Your task to perform on an android device: empty trash in google photos Image 0: 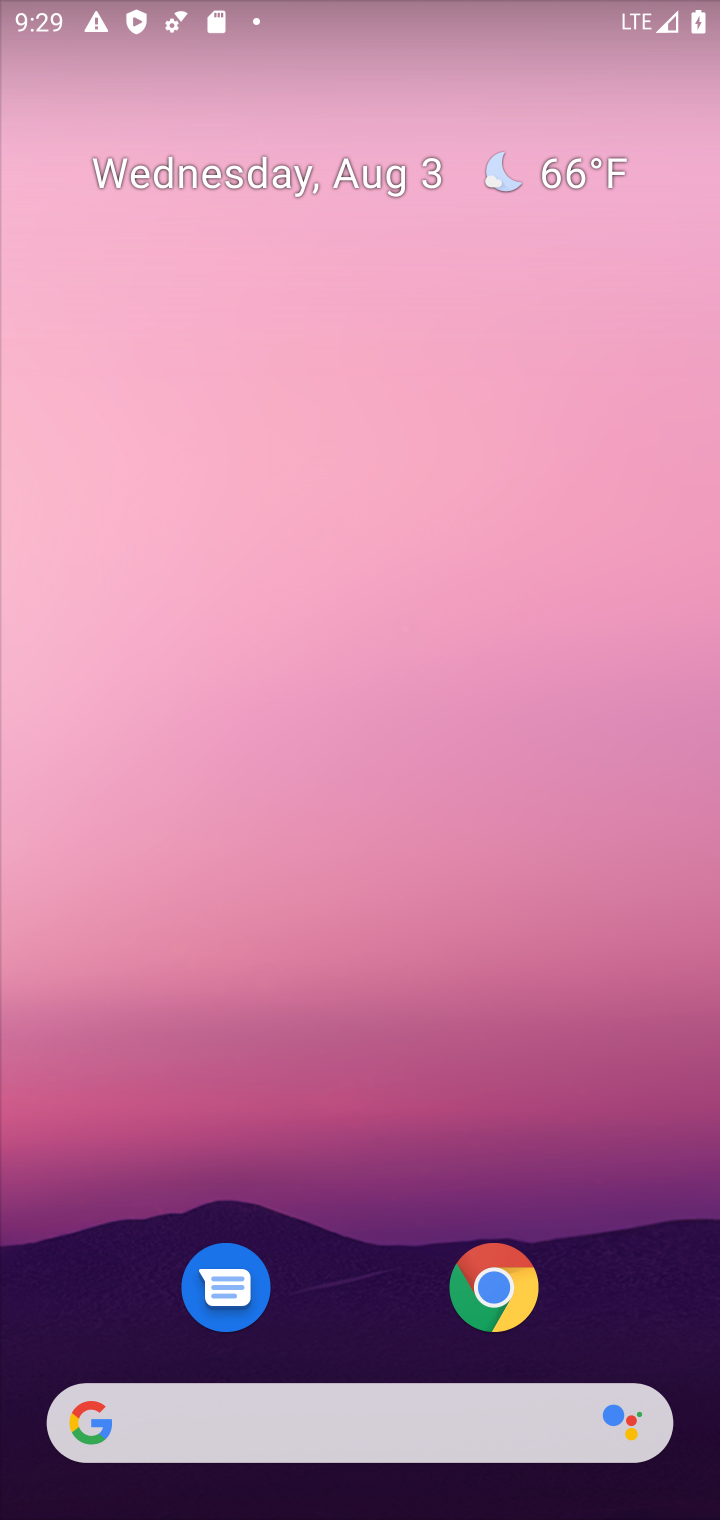
Step 0: drag from (364, 1317) to (359, 29)
Your task to perform on an android device: empty trash in google photos Image 1: 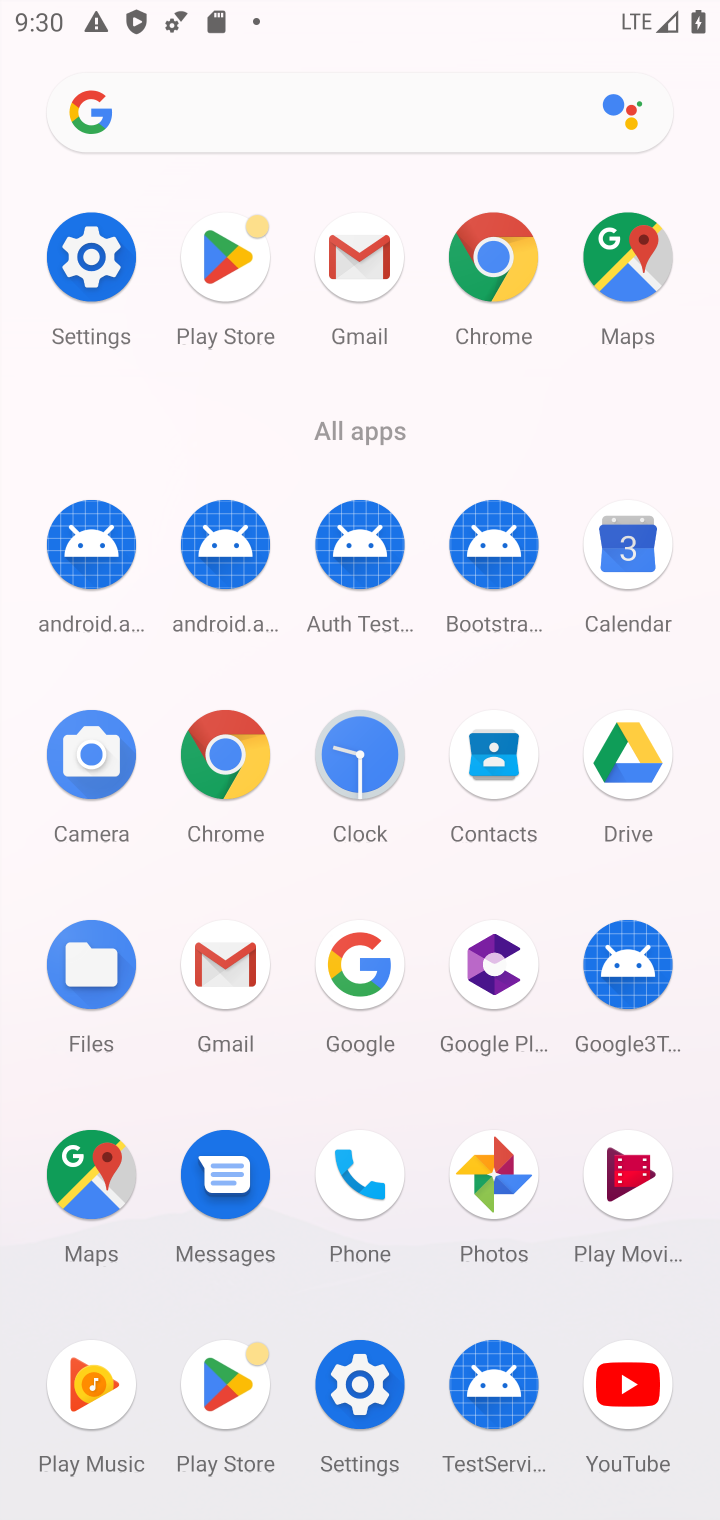
Step 1: drag from (387, 1259) to (358, 336)
Your task to perform on an android device: empty trash in google photos Image 2: 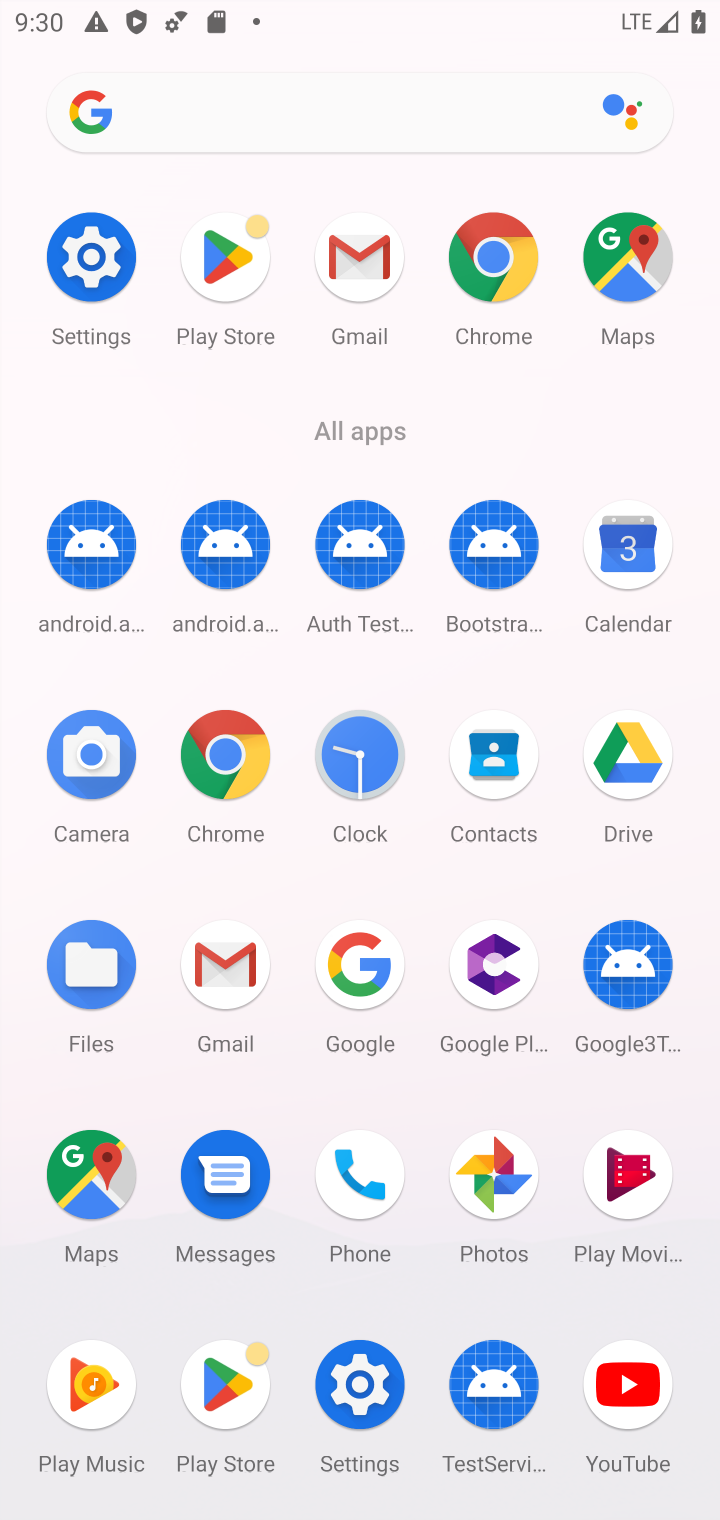
Step 2: click (483, 1115)
Your task to perform on an android device: empty trash in google photos Image 3: 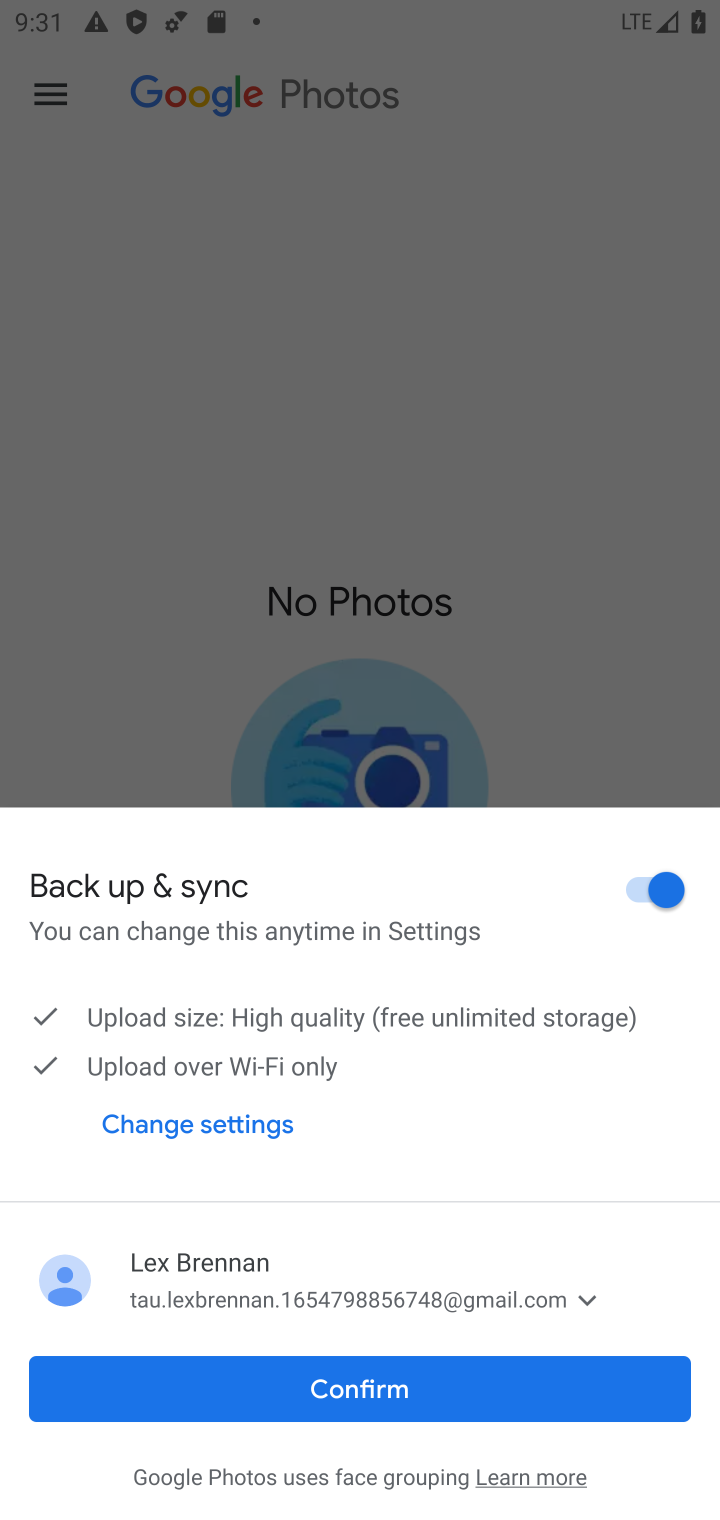
Step 3: click (448, 1391)
Your task to perform on an android device: empty trash in google photos Image 4: 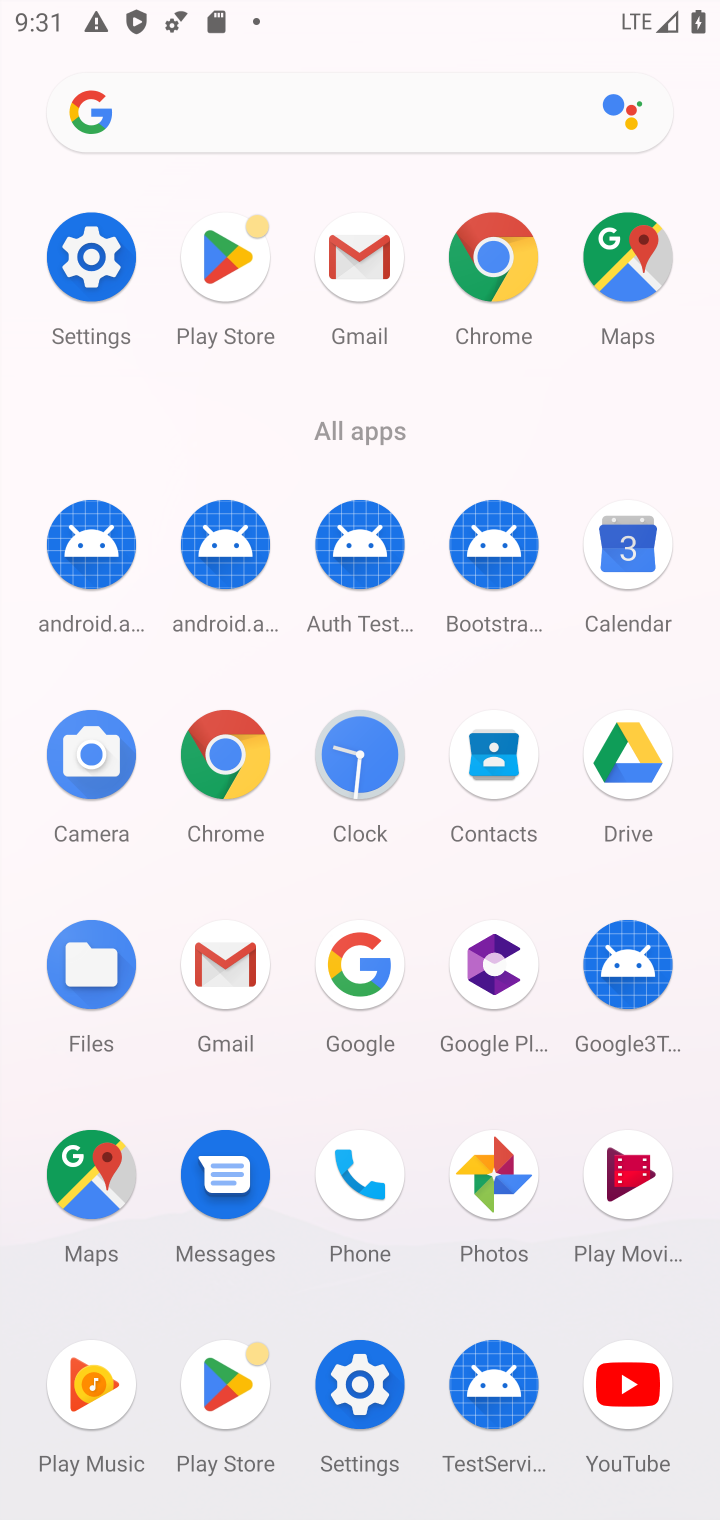
Step 4: click (220, 960)
Your task to perform on an android device: empty trash in google photos Image 5: 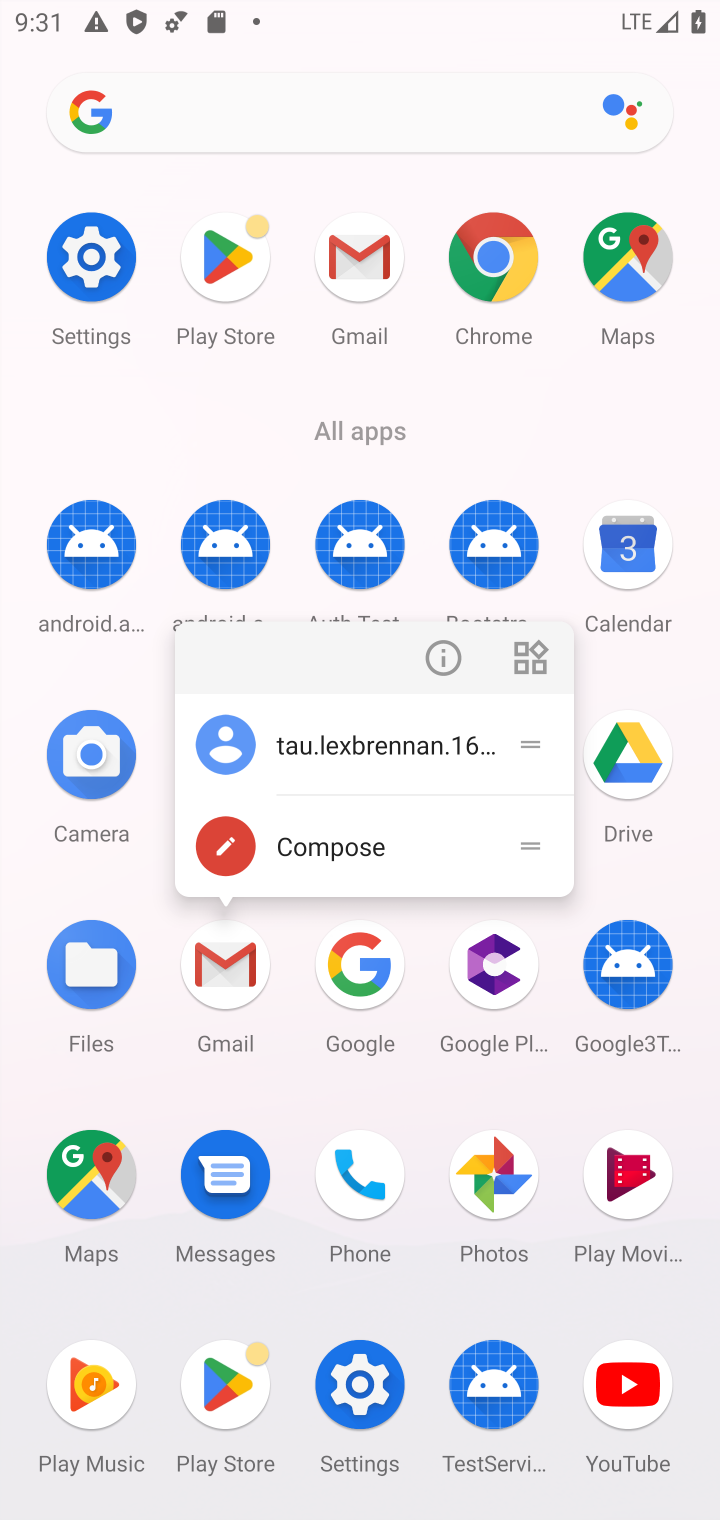
Step 5: click (220, 960)
Your task to perform on an android device: empty trash in google photos Image 6: 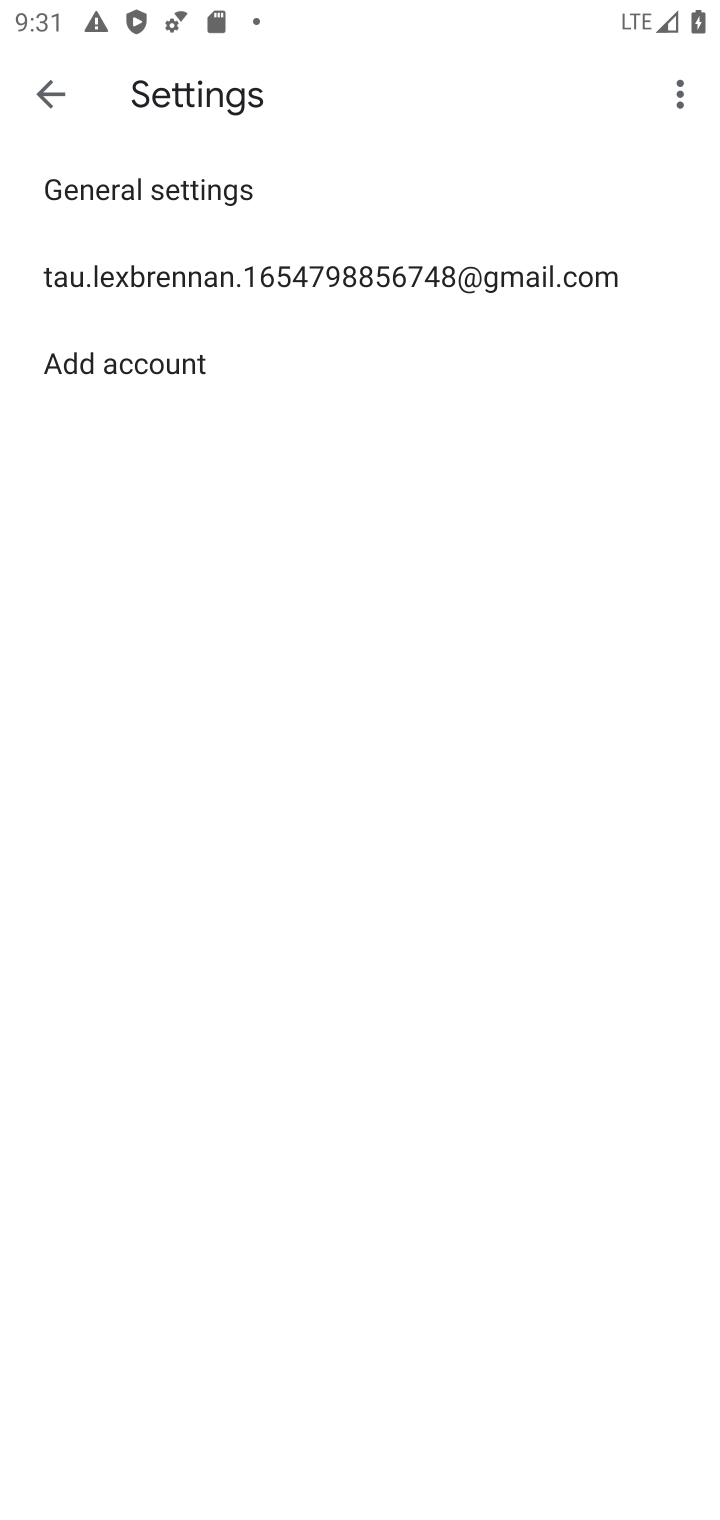
Step 6: click (53, 87)
Your task to perform on an android device: empty trash in google photos Image 7: 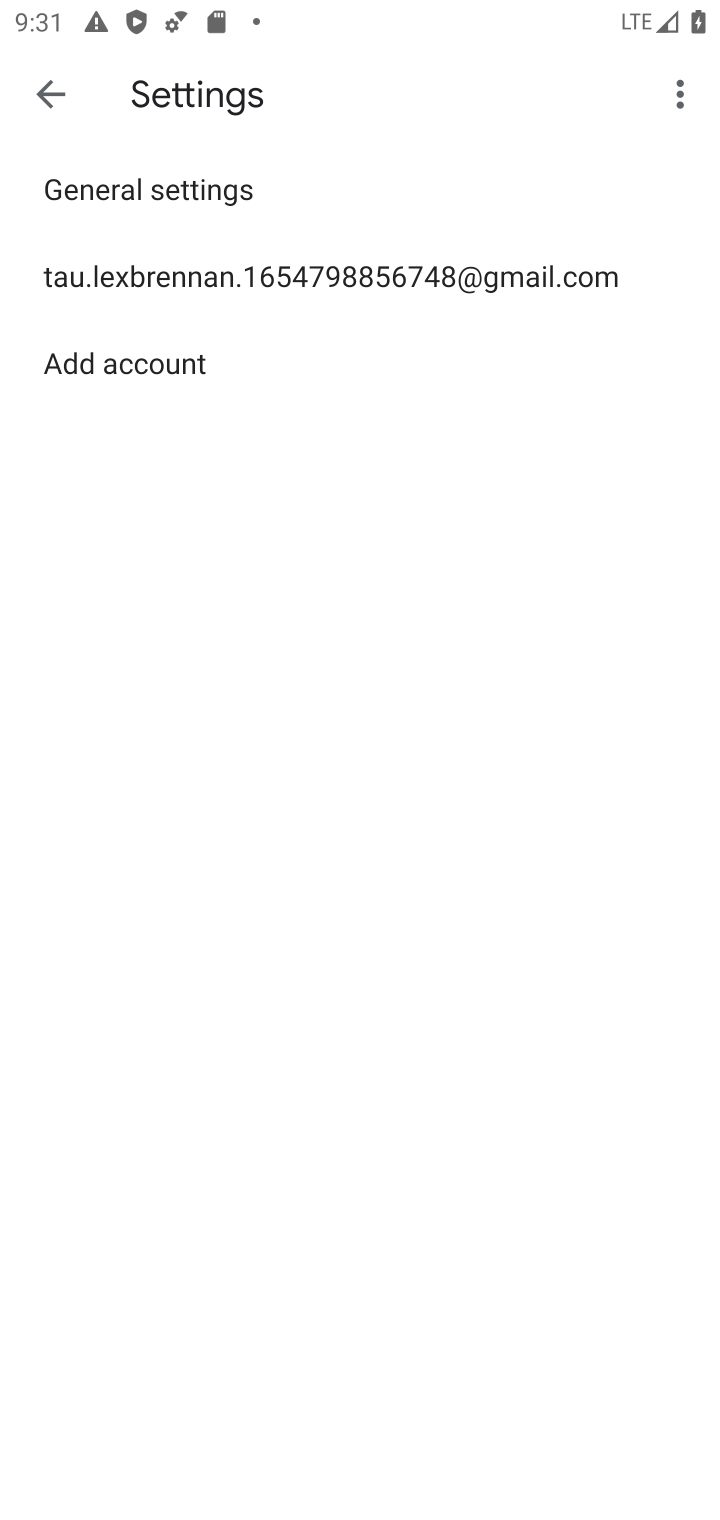
Step 7: click (53, 90)
Your task to perform on an android device: empty trash in google photos Image 8: 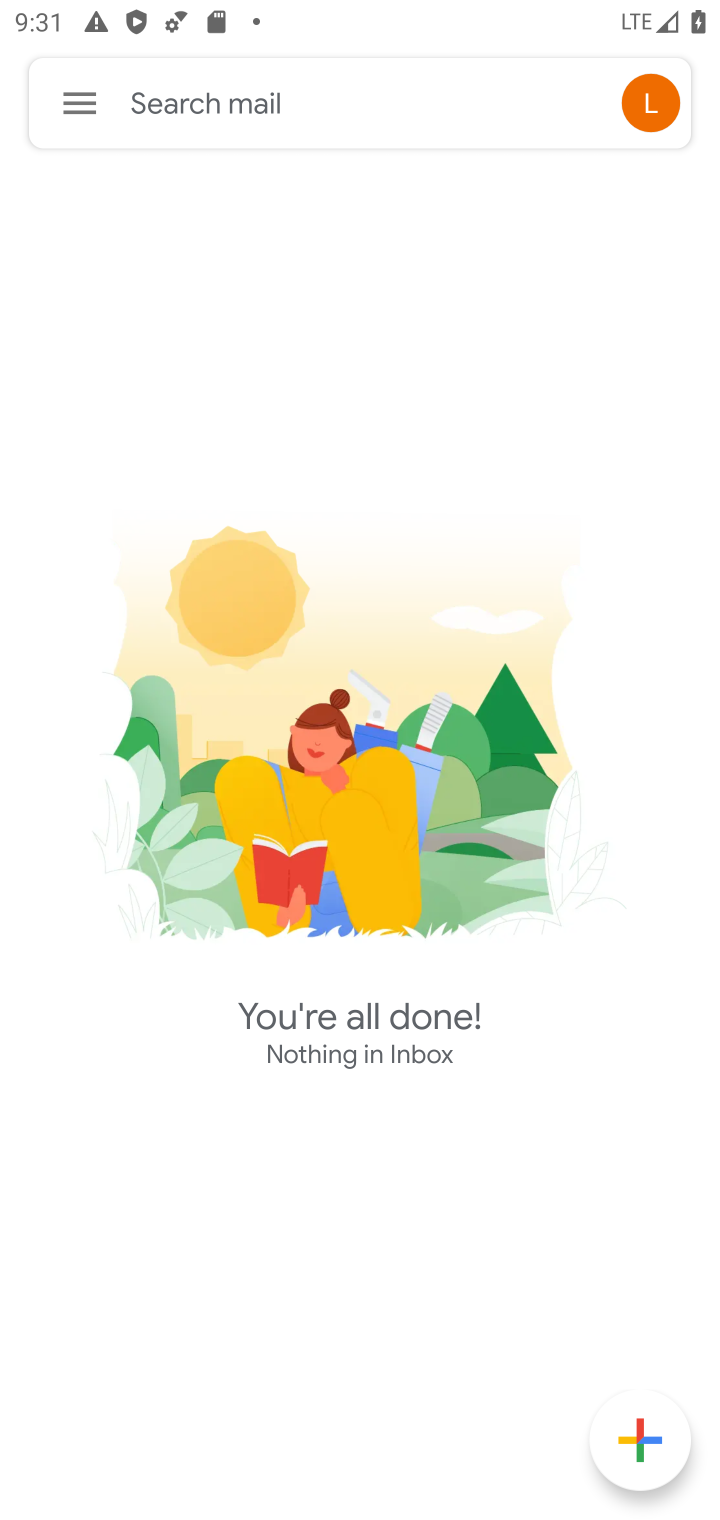
Step 8: click (78, 94)
Your task to perform on an android device: empty trash in google photos Image 9: 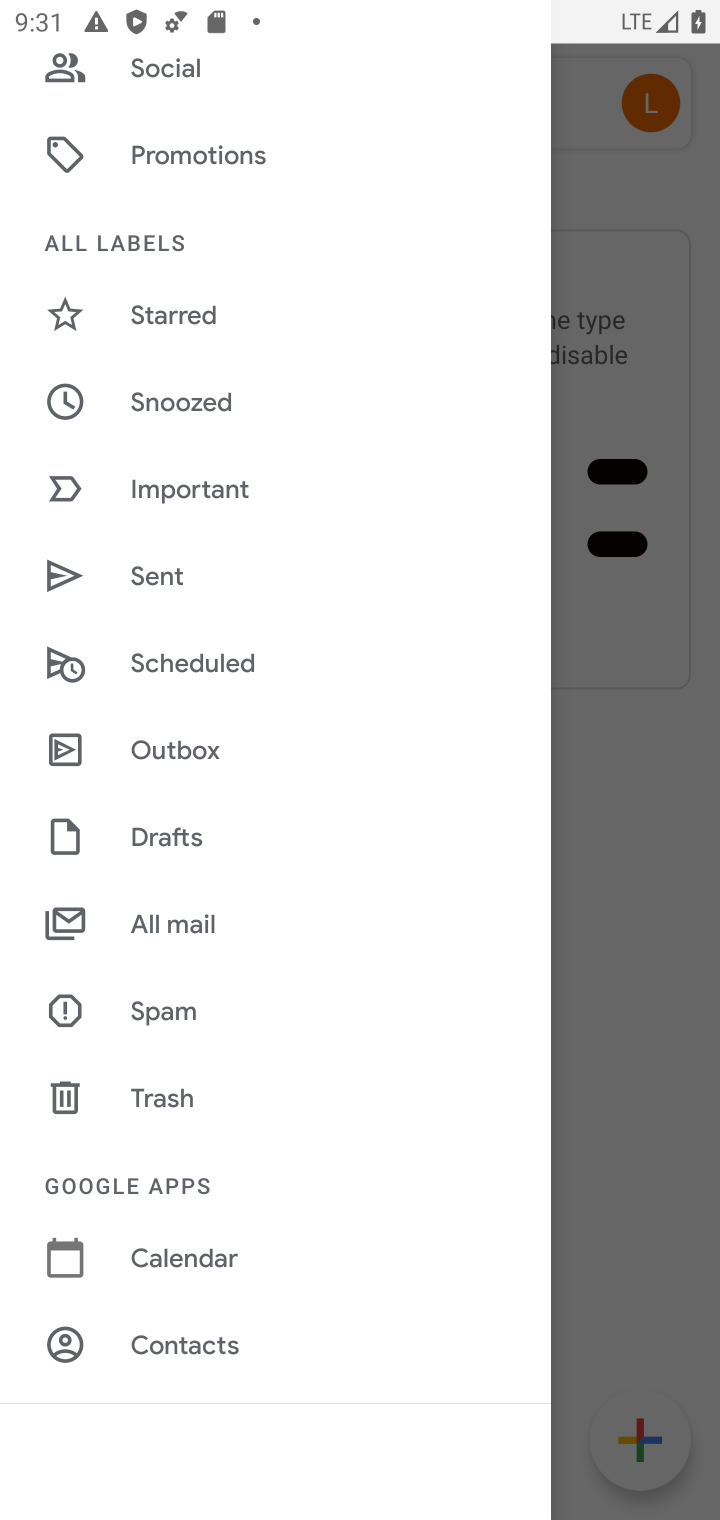
Step 9: click (153, 1093)
Your task to perform on an android device: empty trash in google photos Image 10: 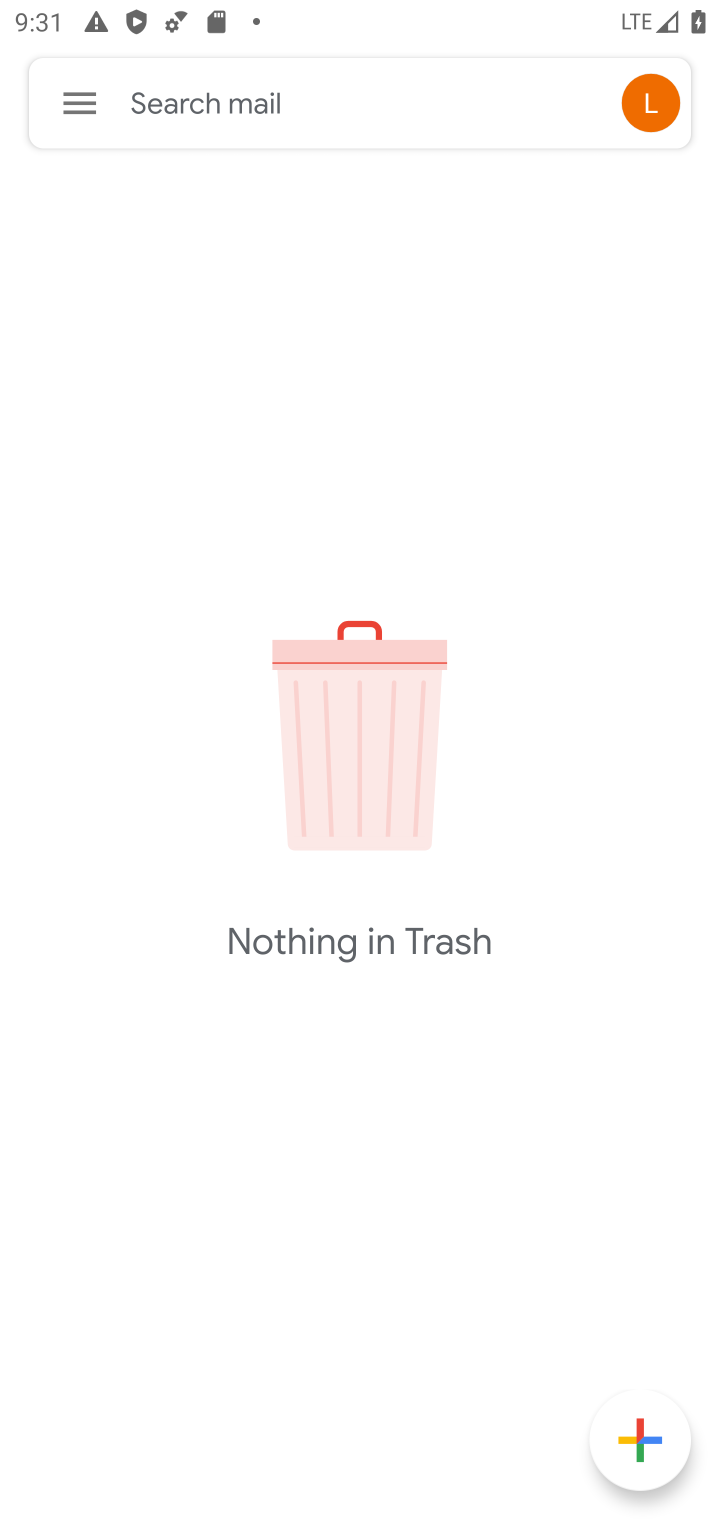
Step 10: task complete